Your task to perform on an android device: Check the weather Image 0: 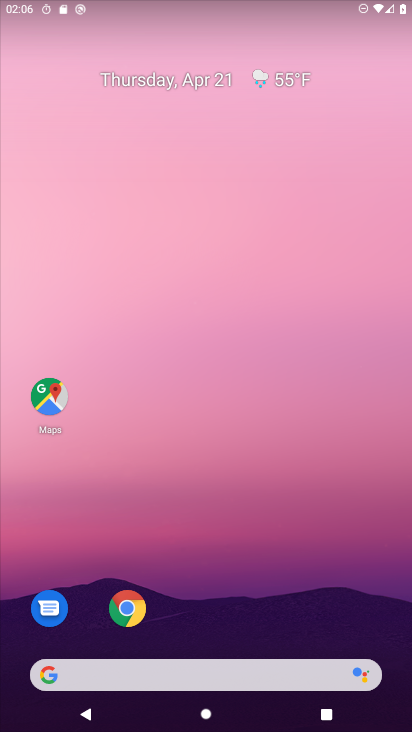
Step 0: click (129, 602)
Your task to perform on an android device: Check the weather Image 1: 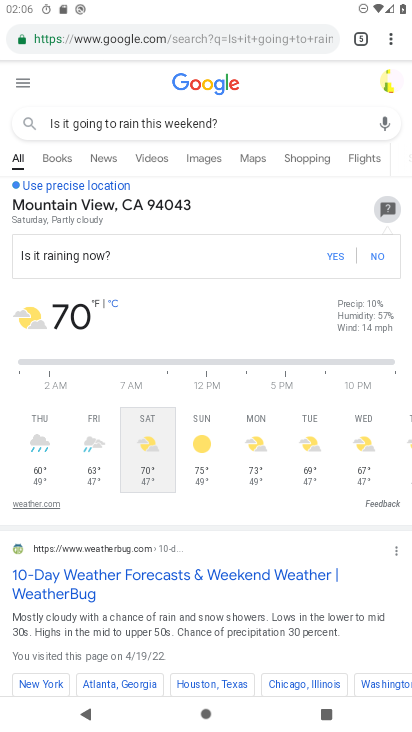
Step 1: click (365, 41)
Your task to perform on an android device: Check the weather Image 2: 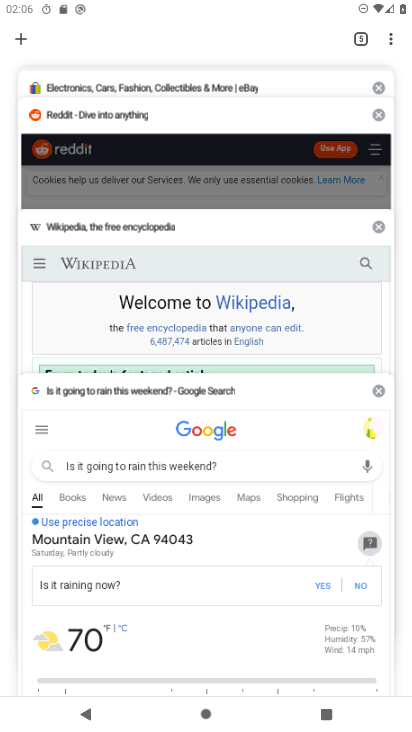
Step 2: drag from (67, 142) to (62, 425)
Your task to perform on an android device: Check the weather Image 3: 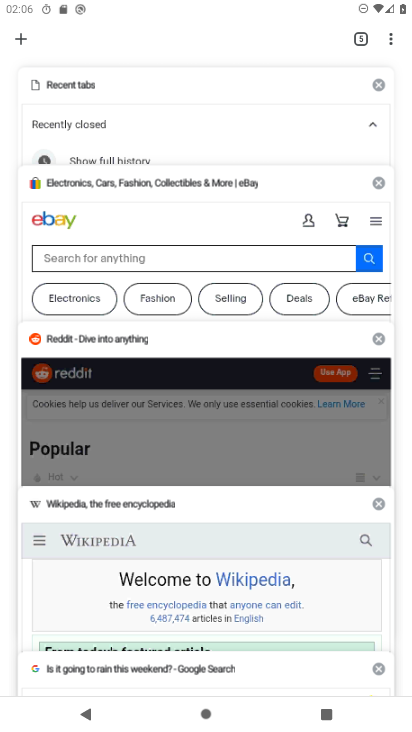
Step 3: click (23, 38)
Your task to perform on an android device: Check the weather Image 4: 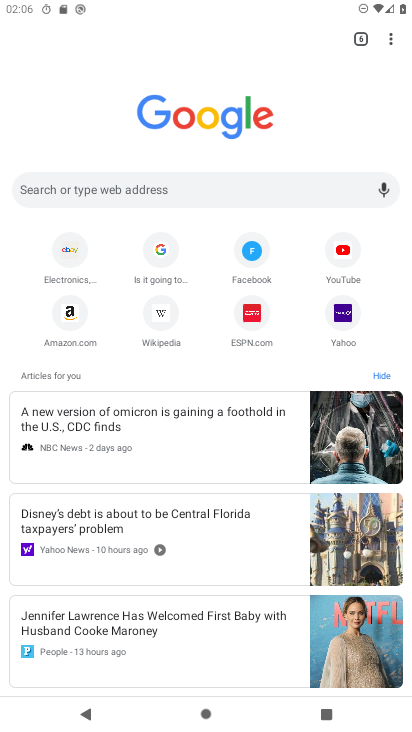
Step 4: click (91, 193)
Your task to perform on an android device: Check the weather Image 5: 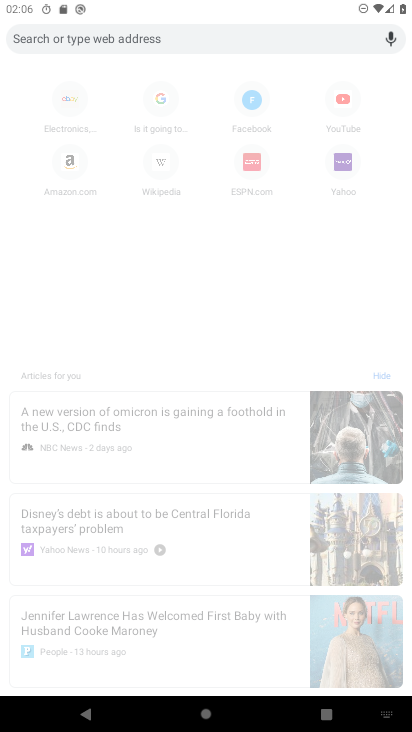
Step 5: type "weather"
Your task to perform on an android device: Check the weather Image 6: 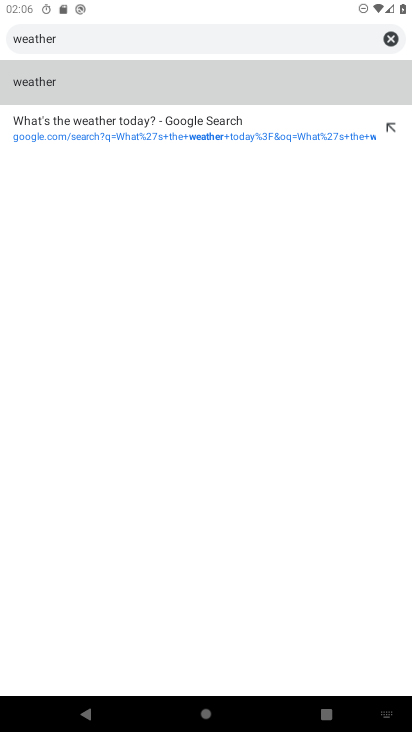
Step 6: click (40, 71)
Your task to perform on an android device: Check the weather Image 7: 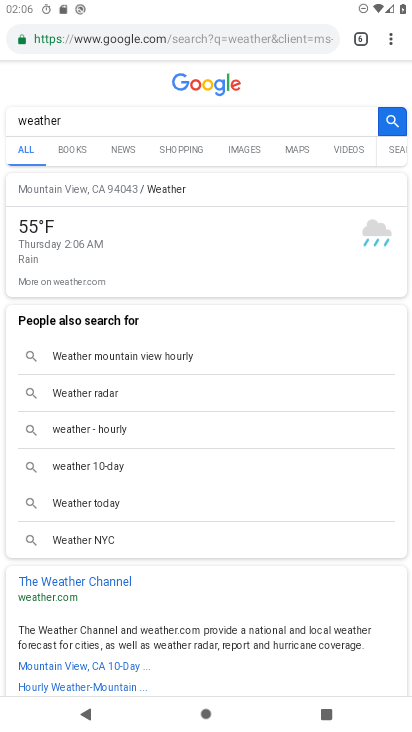
Step 7: task complete